Your task to perform on an android device: turn on location history Image 0: 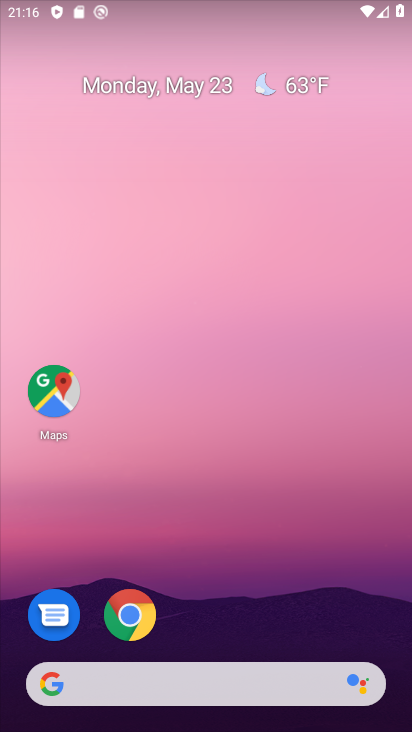
Step 0: drag from (212, 600) to (273, 127)
Your task to perform on an android device: turn on location history Image 1: 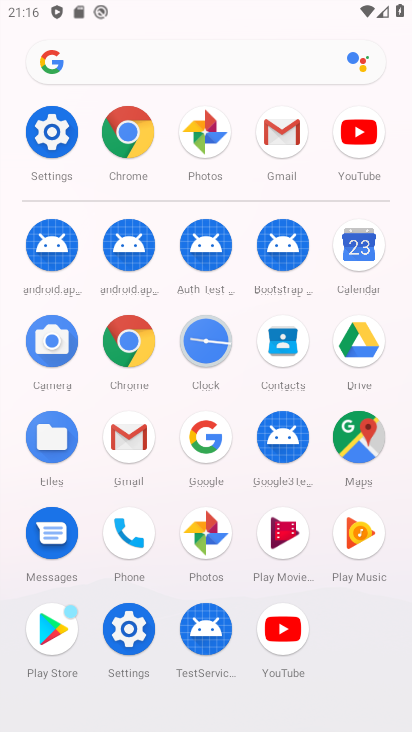
Step 1: click (47, 131)
Your task to perform on an android device: turn on location history Image 2: 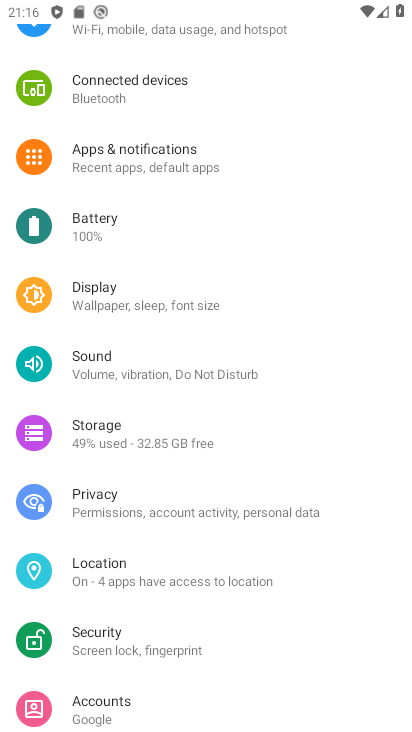
Step 2: click (136, 579)
Your task to perform on an android device: turn on location history Image 3: 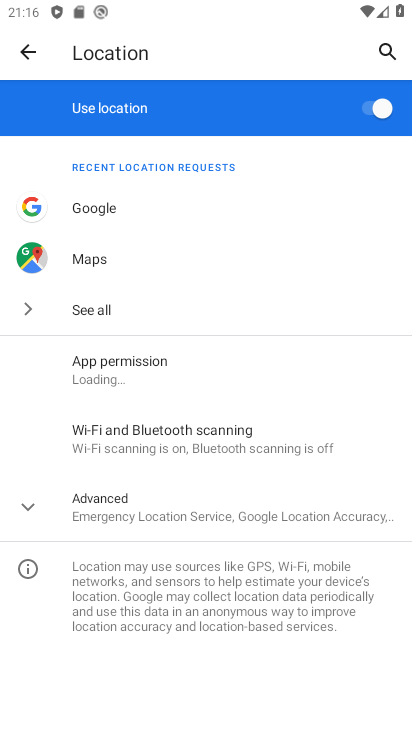
Step 3: click (147, 516)
Your task to perform on an android device: turn on location history Image 4: 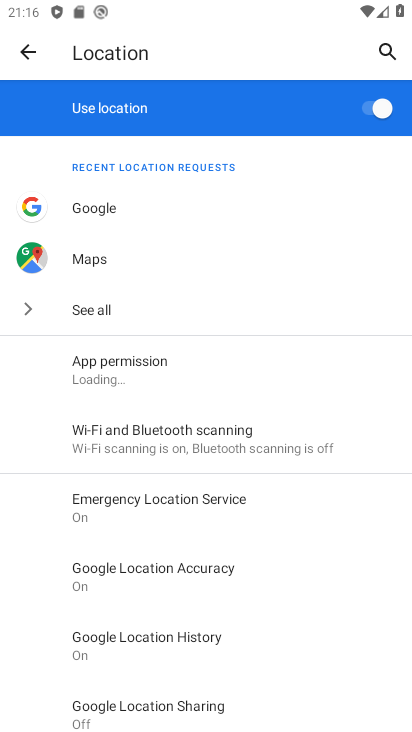
Step 4: click (149, 645)
Your task to perform on an android device: turn on location history Image 5: 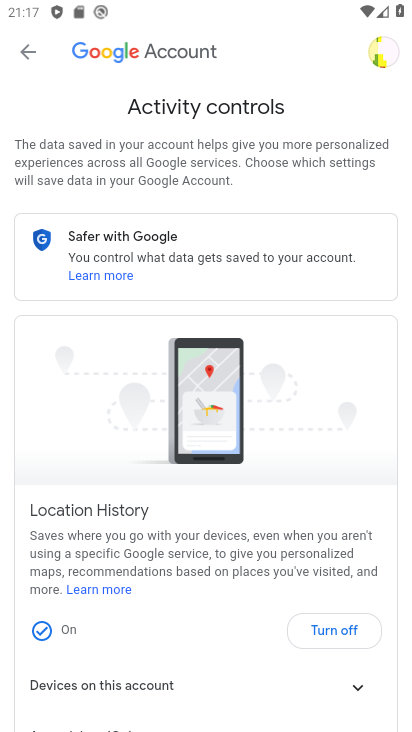
Step 5: task complete